Your task to perform on an android device: Add "razer deathadder" to the cart on walmart, then select checkout. Image 0: 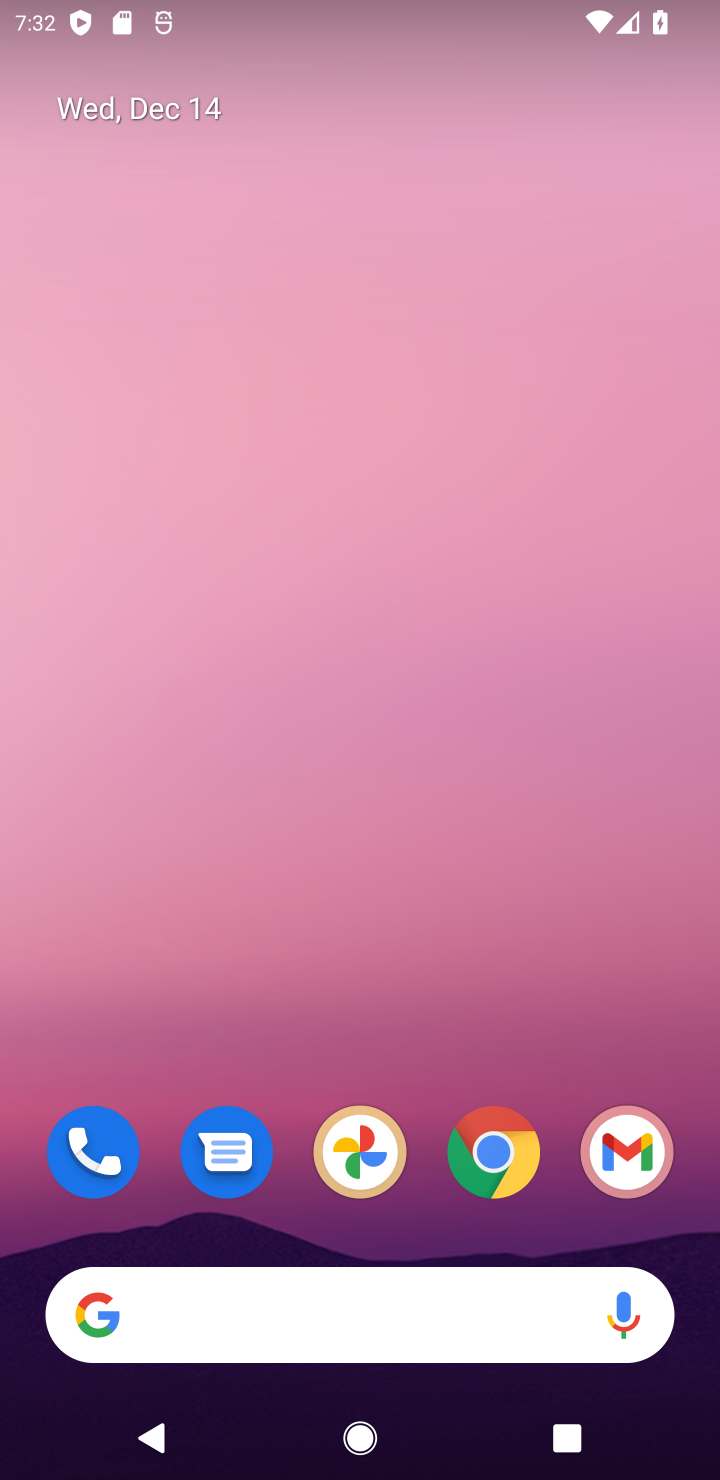
Step 0: click (496, 1165)
Your task to perform on an android device: Add "razer deathadder" to the cart on walmart, then select checkout. Image 1: 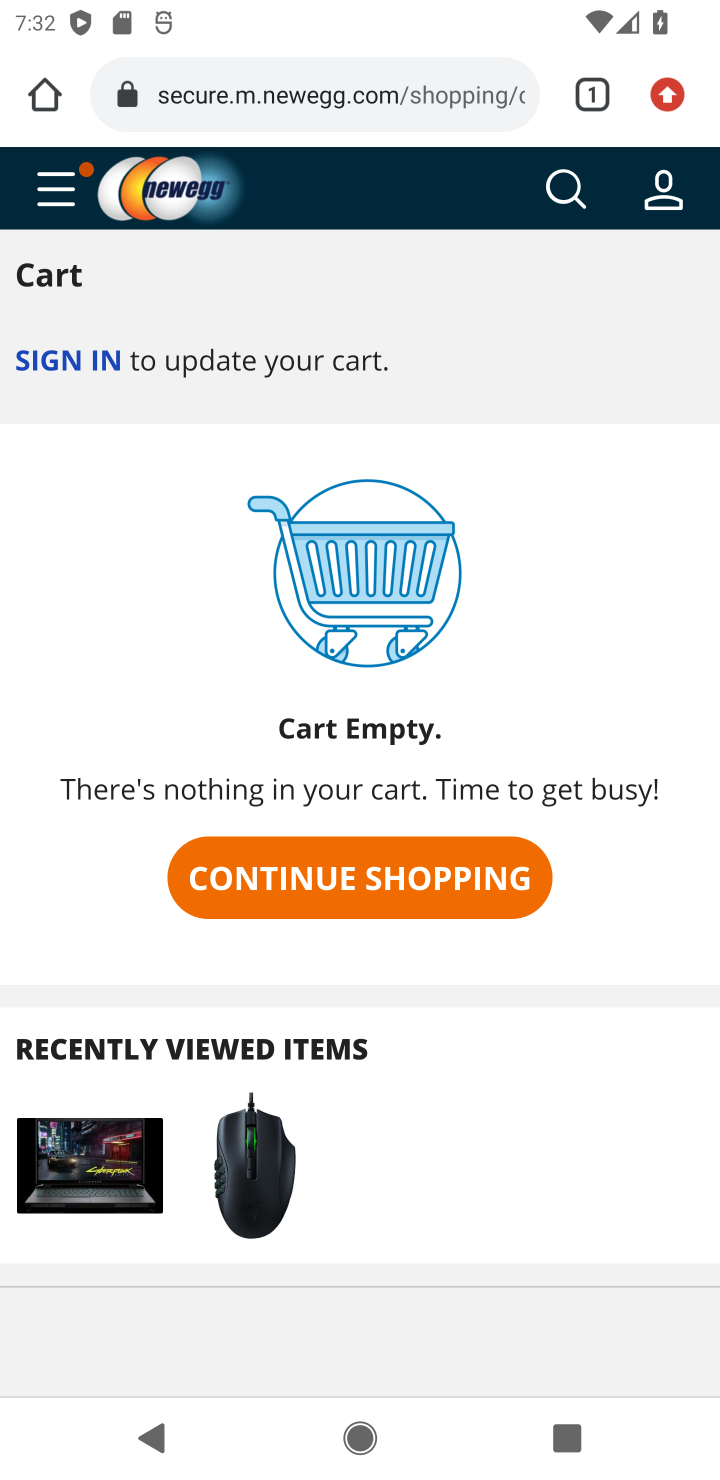
Step 1: click (232, 92)
Your task to perform on an android device: Add "razer deathadder" to the cart on walmart, then select checkout. Image 2: 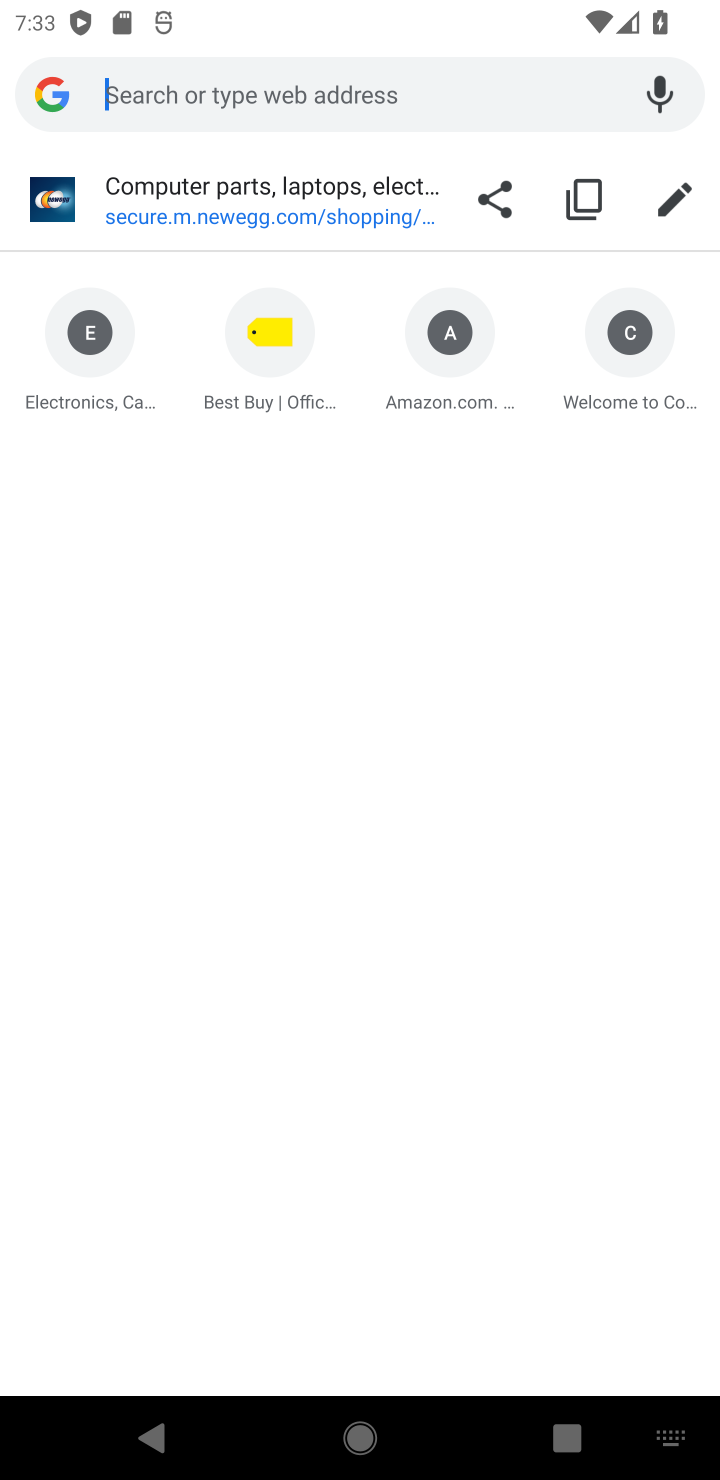
Step 2: type "walmart.com"
Your task to perform on an android device: Add "razer deathadder" to the cart on walmart, then select checkout. Image 3: 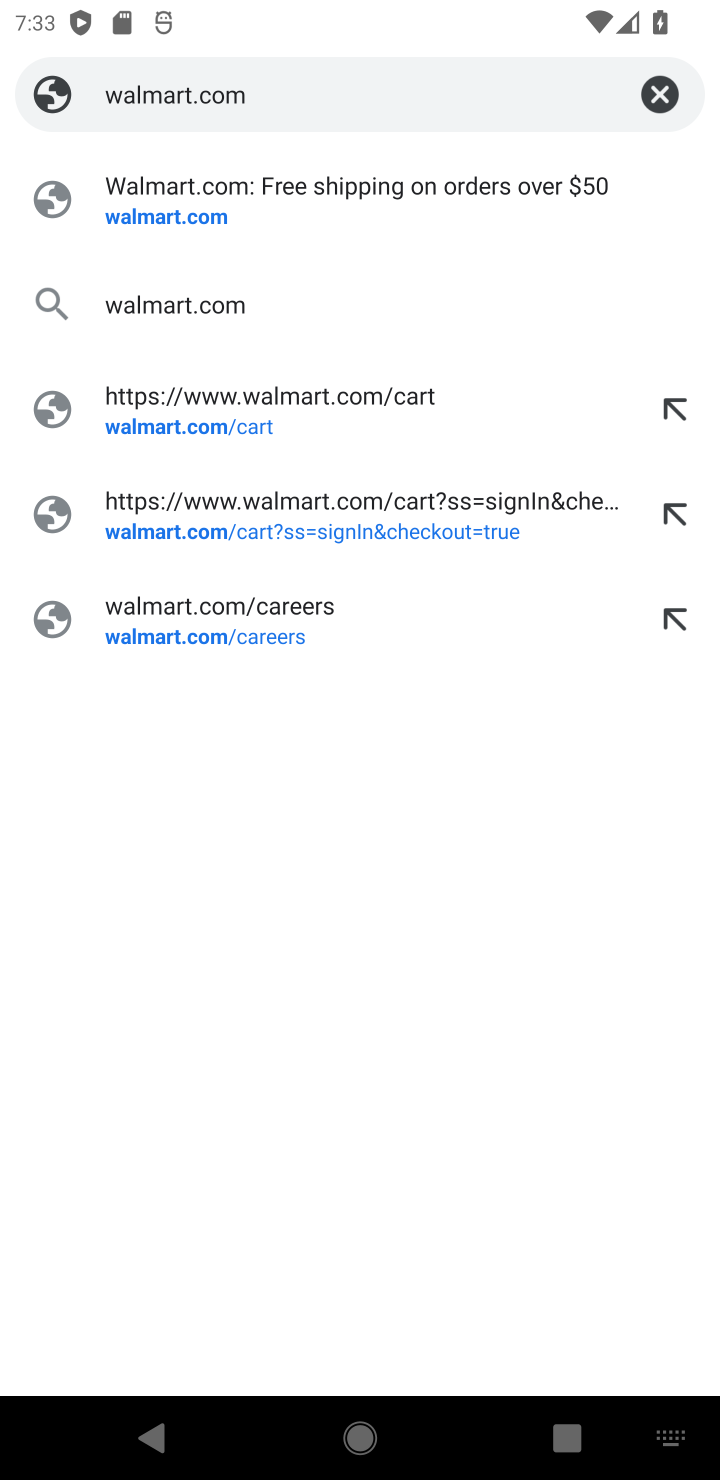
Step 3: click (160, 213)
Your task to perform on an android device: Add "razer deathadder" to the cart on walmart, then select checkout. Image 4: 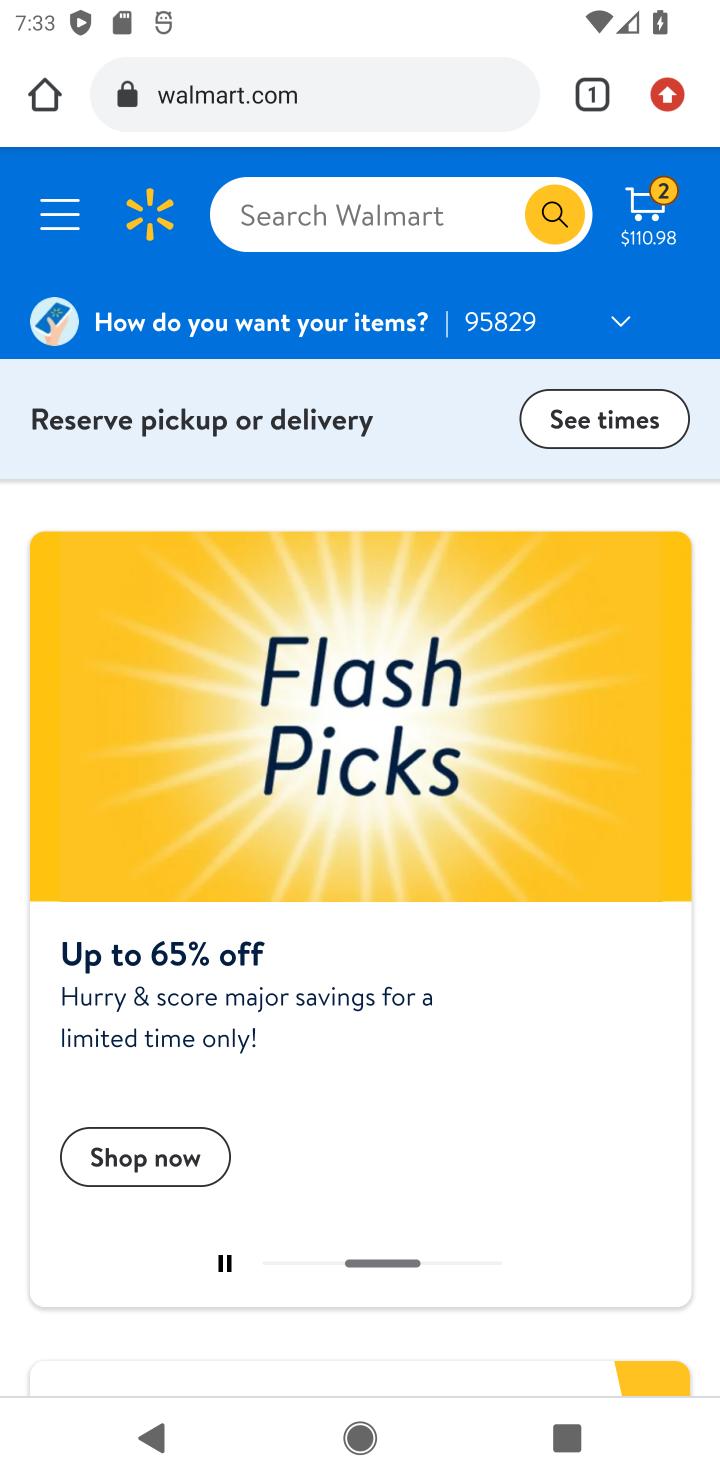
Step 4: click (324, 215)
Your task to perform on an android device: Add "razer deathadder" to the cart on walmart, then select checkout. Image 5: 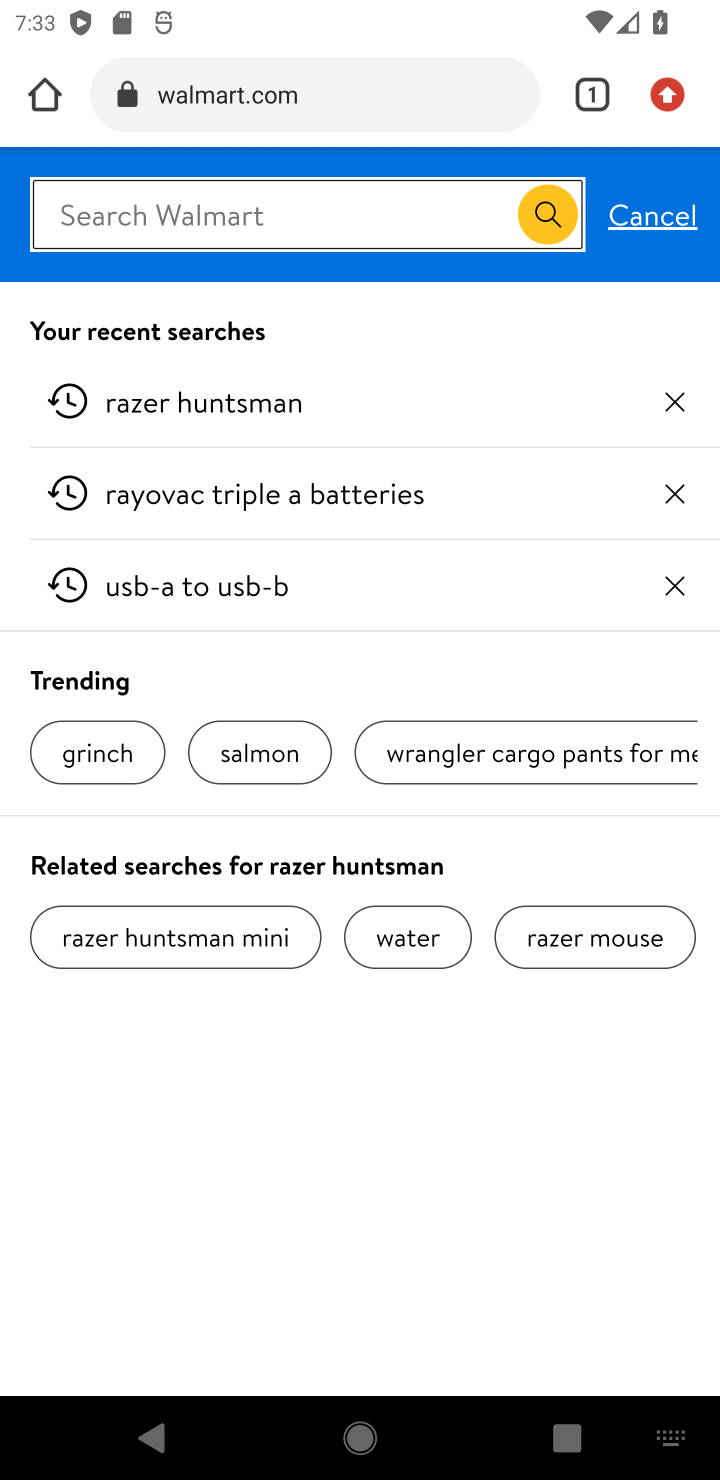
Step 5: type "razer deathadder"
Your task to perform on an android device: Add "razer deathadder" to the cart on walmart, then select checkout. Image 6: 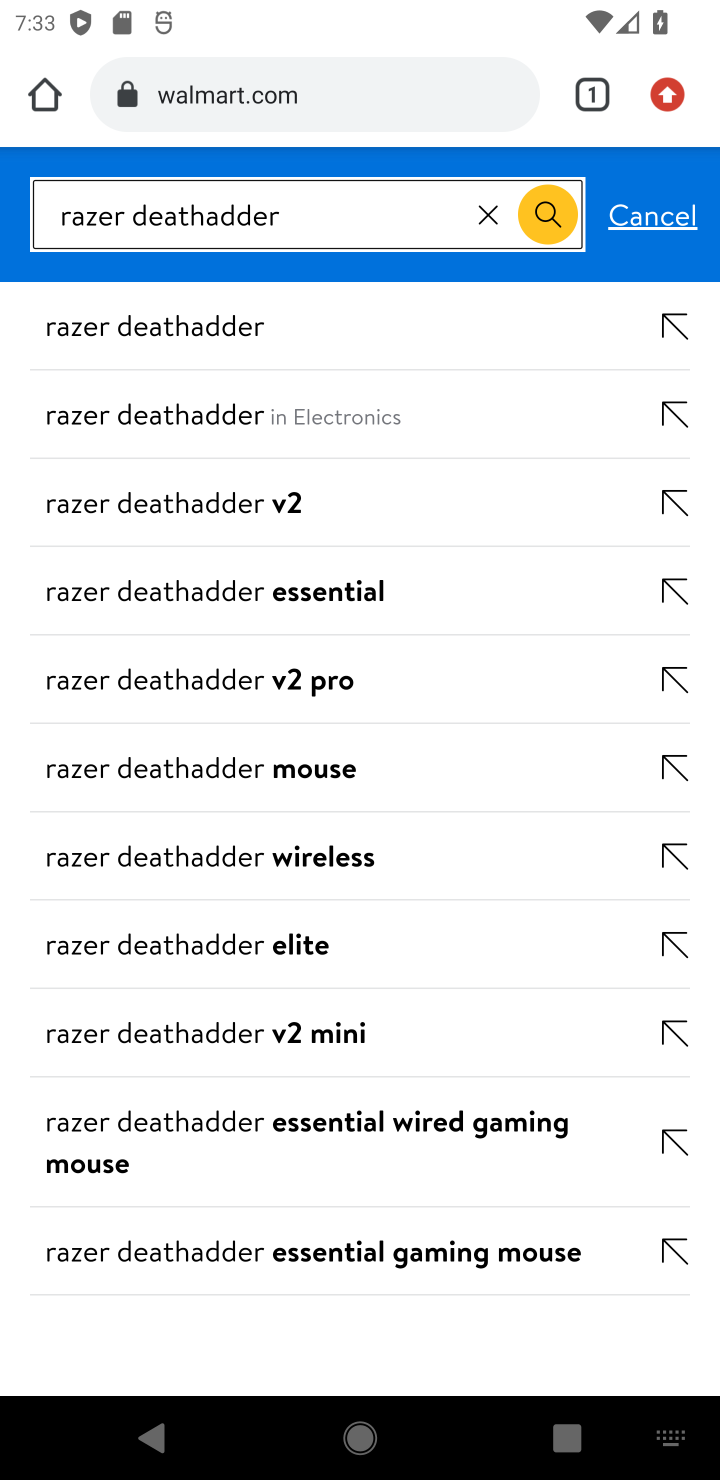
Step 6: click (139, 351)
Your task to perform on an android device: Add "razer deathadder" to the cart on walmart, then select checkout. Image 7: 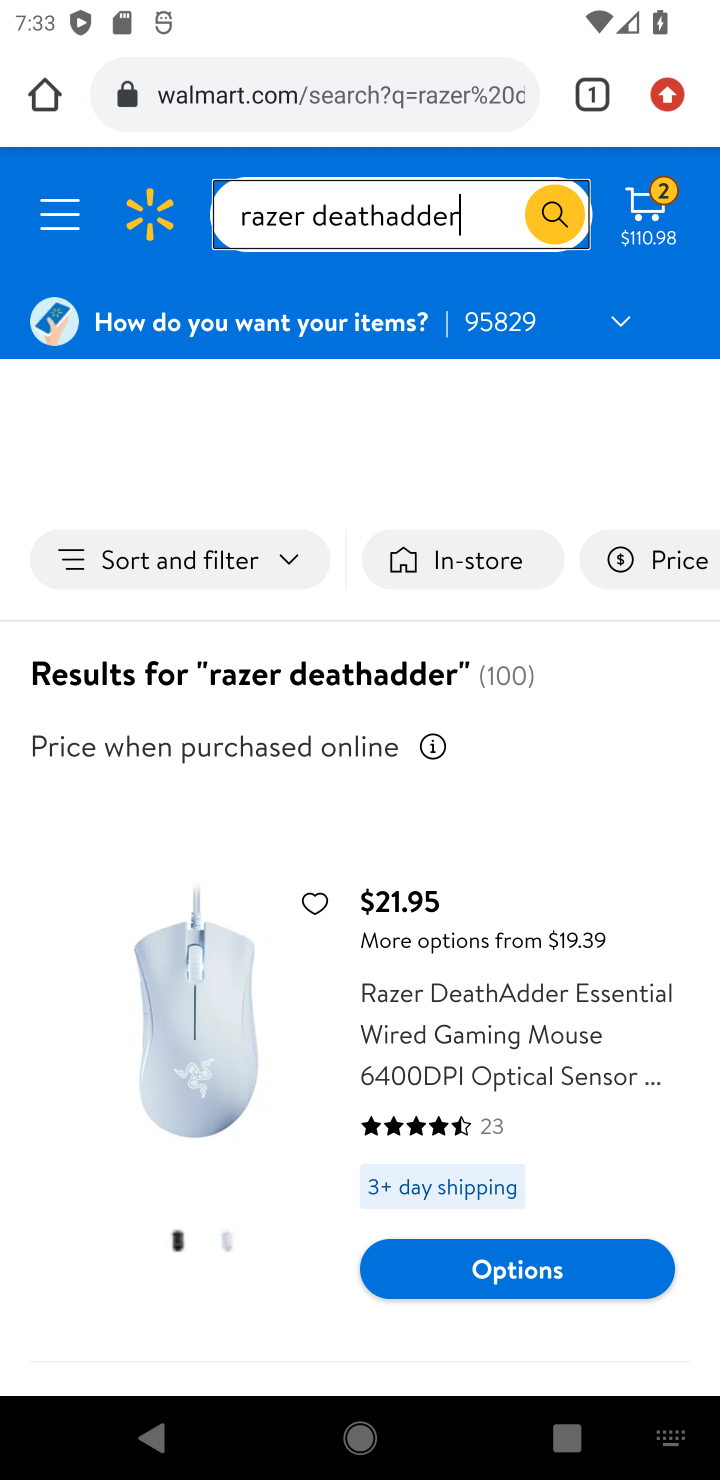
Step 7: click (480, 1038)
Your task to perform on an android device: Add "razer deathadder" to the cart on walmart, then select checkout. Image 8: 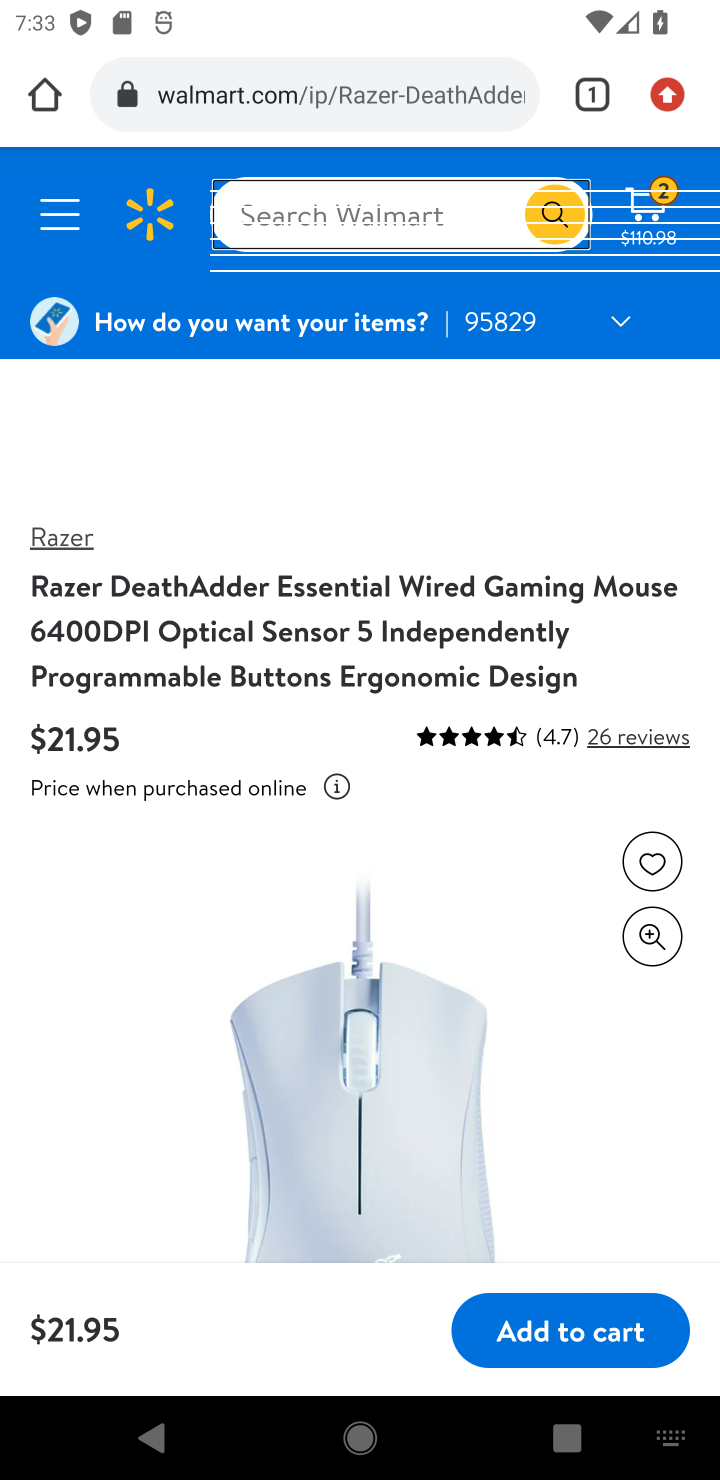
Step 8: click (508, 1331)
Your task to perform on an android device: Add "razer deathadder" to the cart on walmart, then select checkout. Image 9: 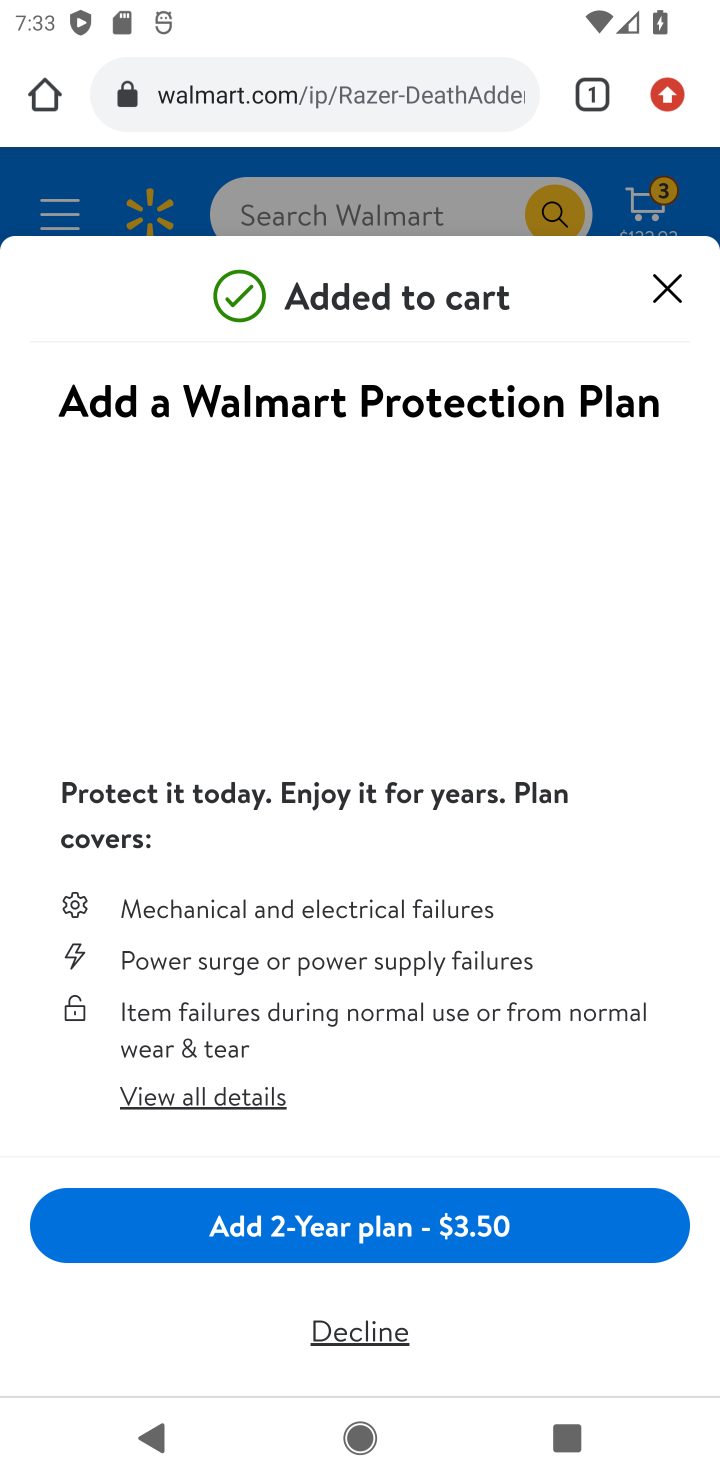
Step 9: click (662, 298)
Your task to perform on an android device: Add "razer deathadder" to the cart on walmart, then select checkout. Image 10: 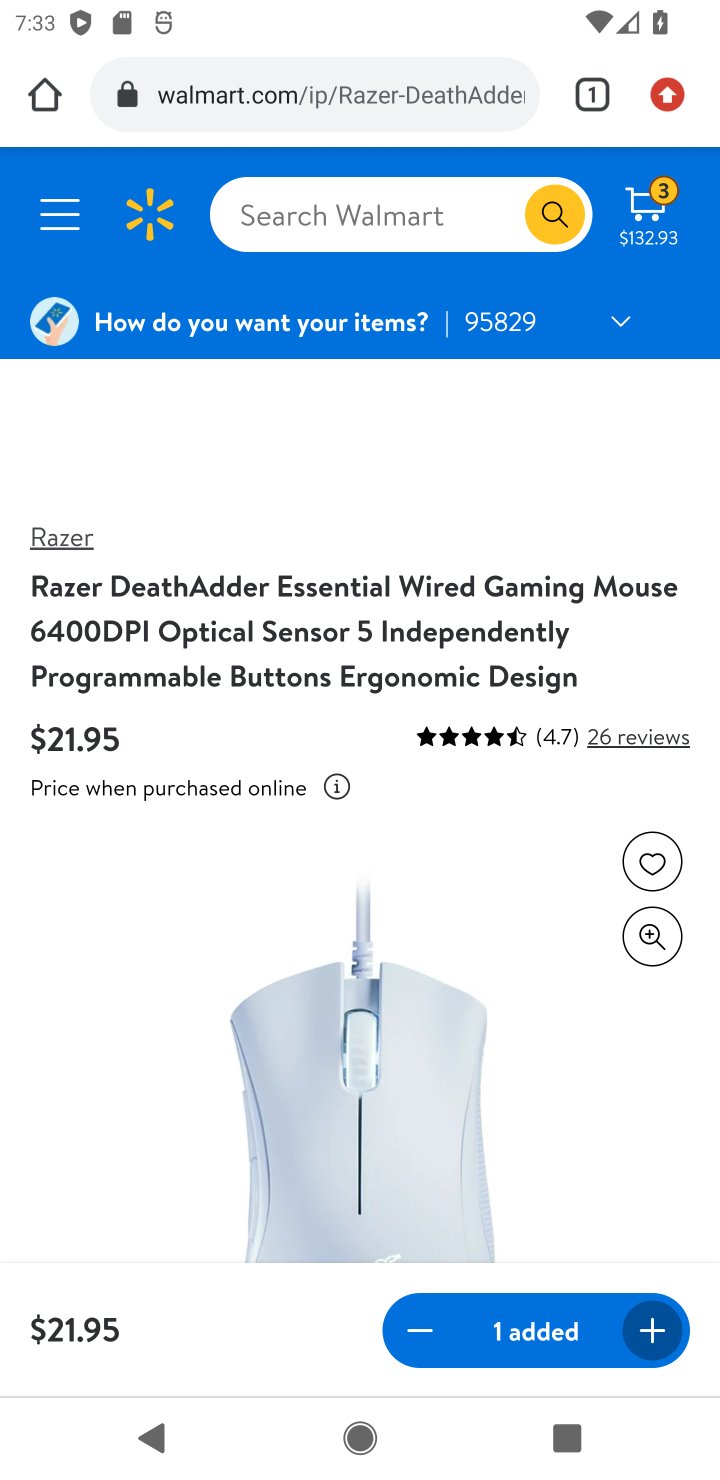
Step 10: click (659, 221)
Your task to perform on an android device: Add "razer deathadder" to the cart on walmart, then select checkout. Image 11: 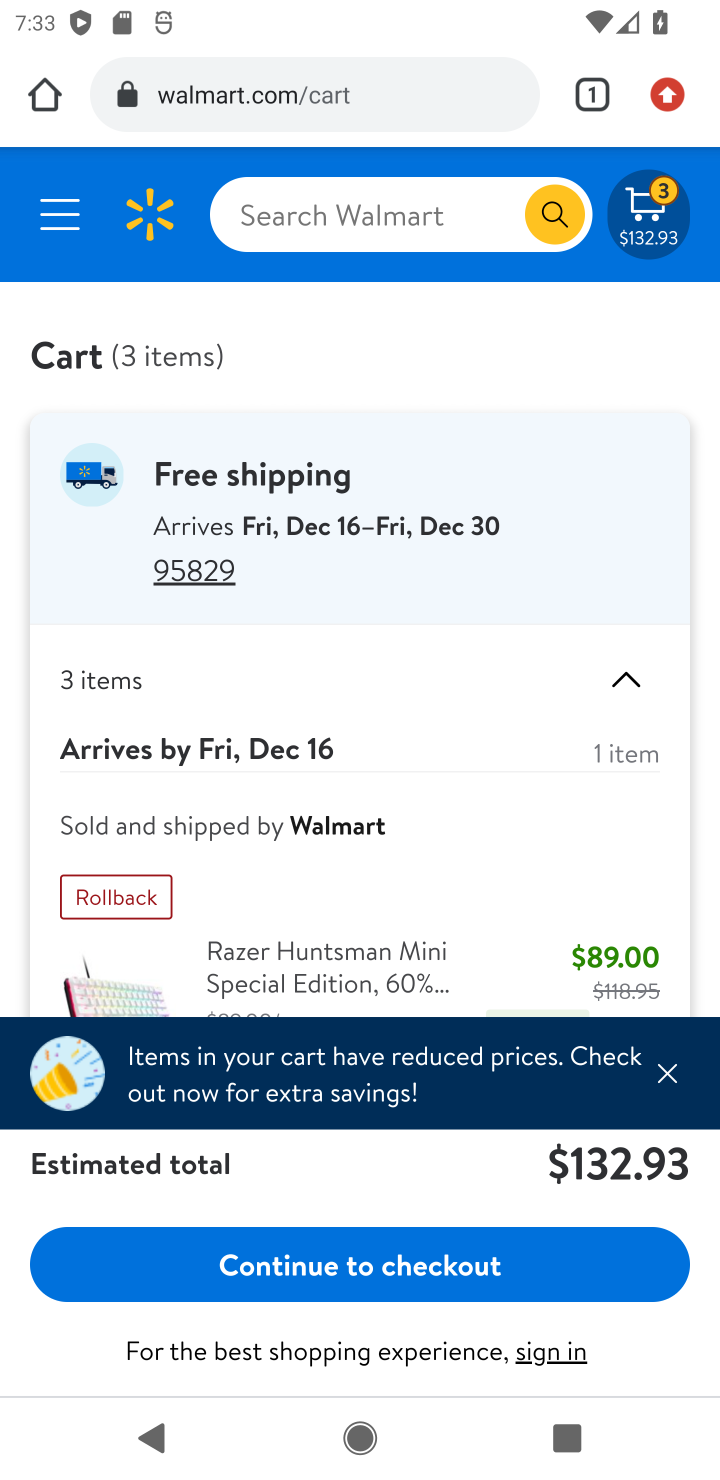
Step 11: click (328, 1248)
Your task to perform on an android device: Add "razer deathadder" to the cart on walmart, then select checkout. Image 12: 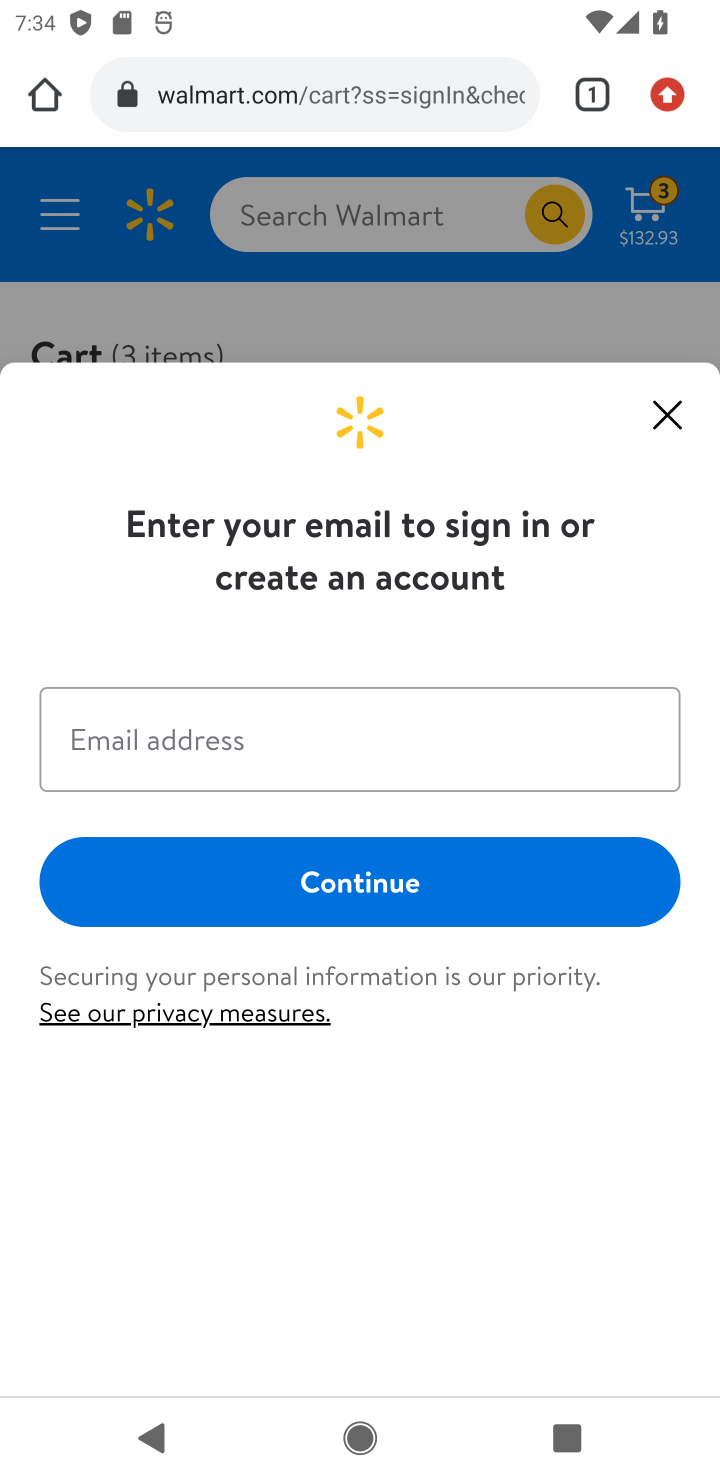
Step 12: task complete